Your task to perform on an android device: Go to Amazon Image 0: 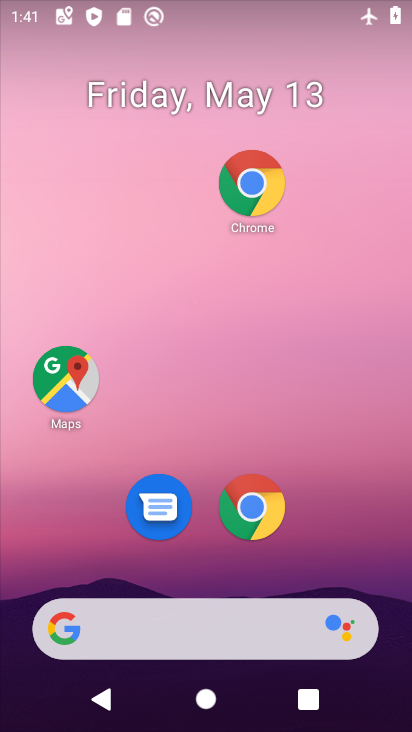
Step 0: drag from (401, 718) to (255, 137)
Your task to perform on an android device: Go to Amazon Image 1: 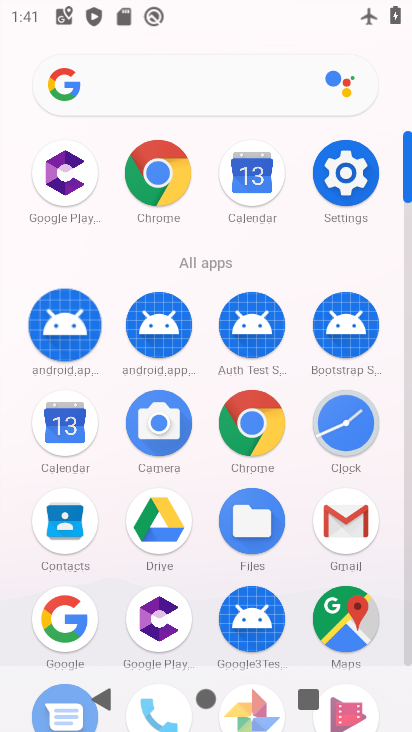
Step 1: click (148, 166)
Your task to perform on an android device: Go to Amazon Image 2: 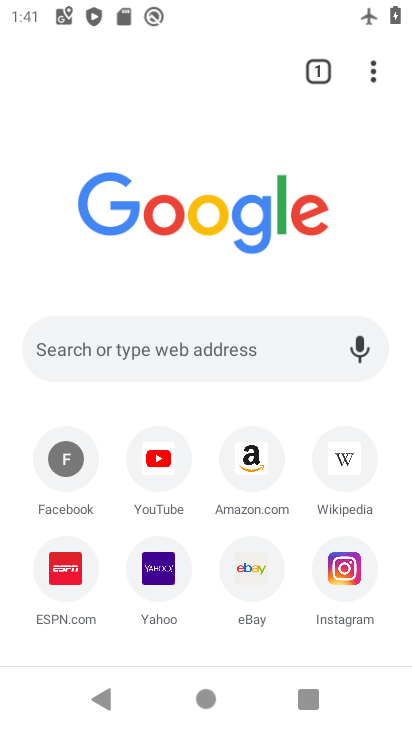
Step 2: click (250, 459)
Your task to perform on an android device: Go to Amazon Image 3: 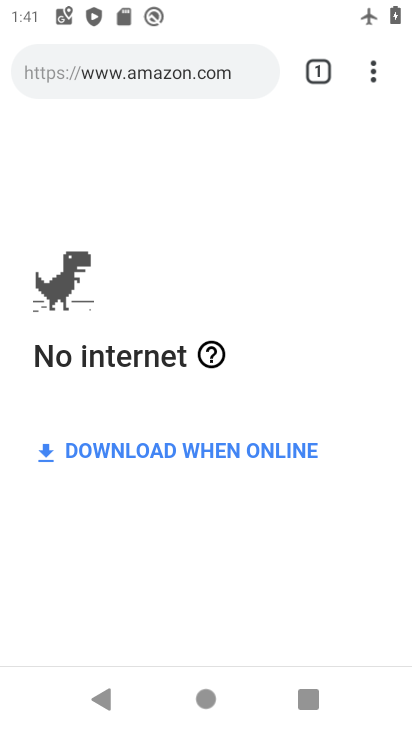
Step 3: click (237, 341)
Your task to perform on an android device: Go to Amazon Image 4: 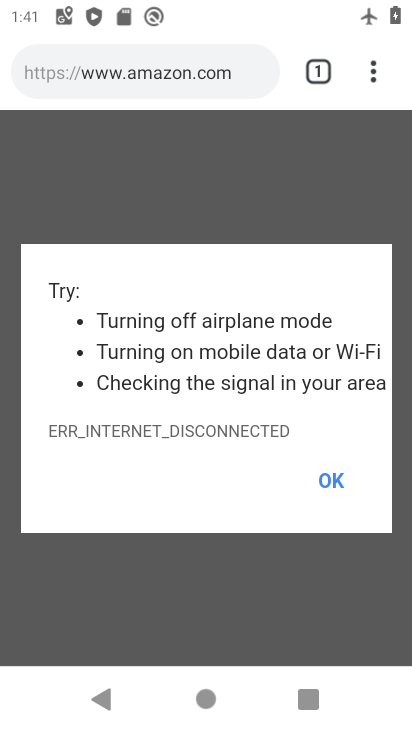
Step 4: task complete